Your task to perform on an android device: toggle wifi Image 0: 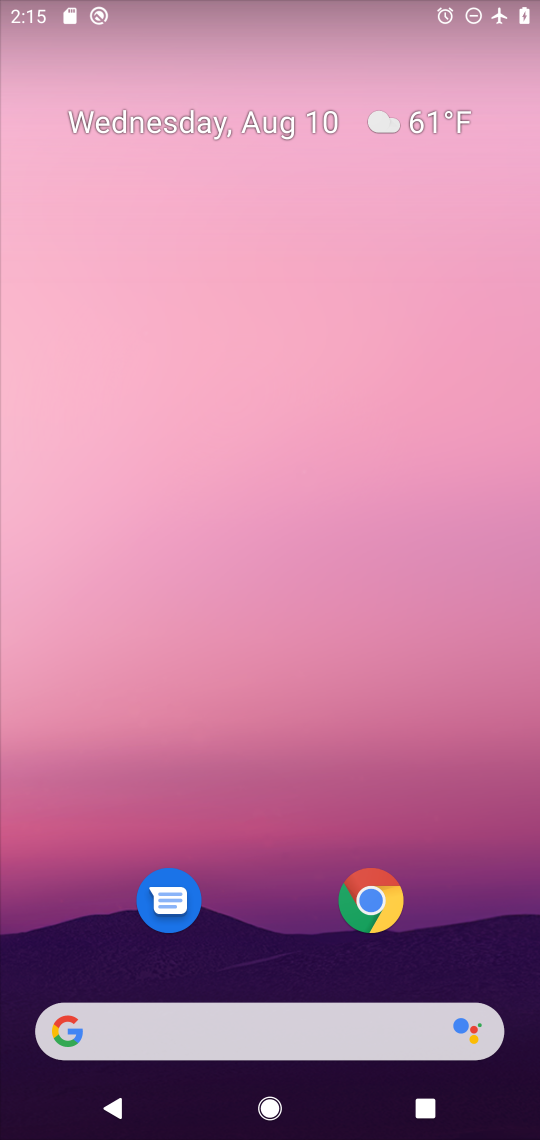
Step 0: drag from (268, 895) to (341, 19)
Your task to perform on an android device: toggle wifi Image 1: 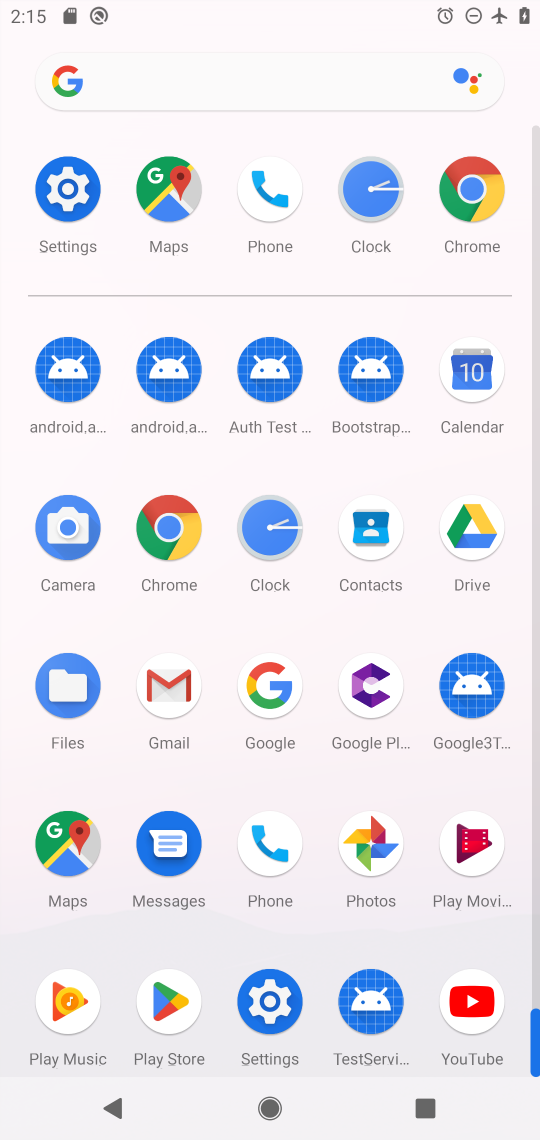
Step 1: click (76, 194)
Your task to perform on an android device: toggle wifi Image 2: 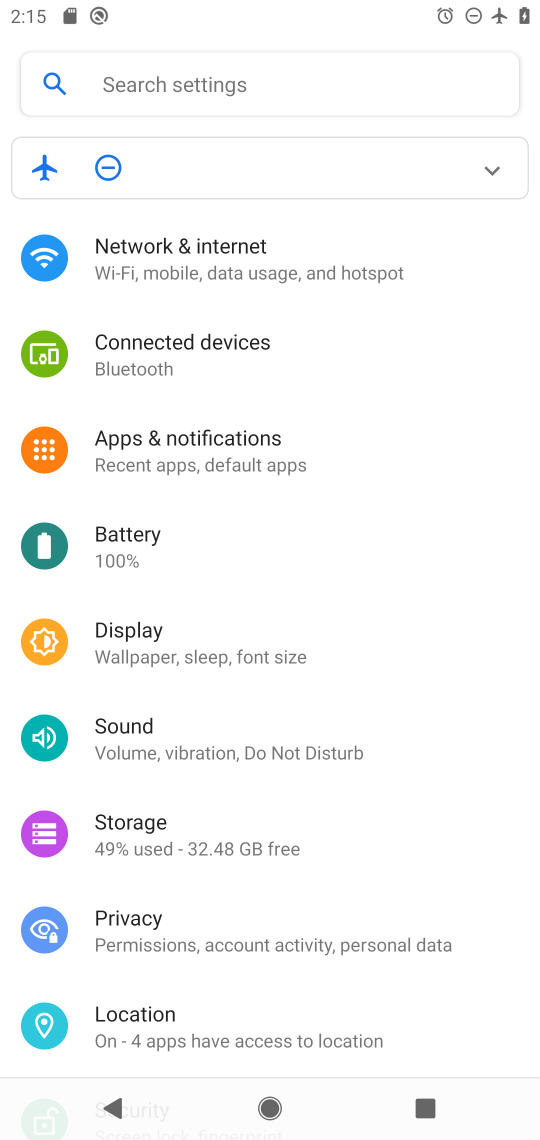
Step 2: click (189, 256)
Your task to perform on an android device: toggle wifi Image 3: 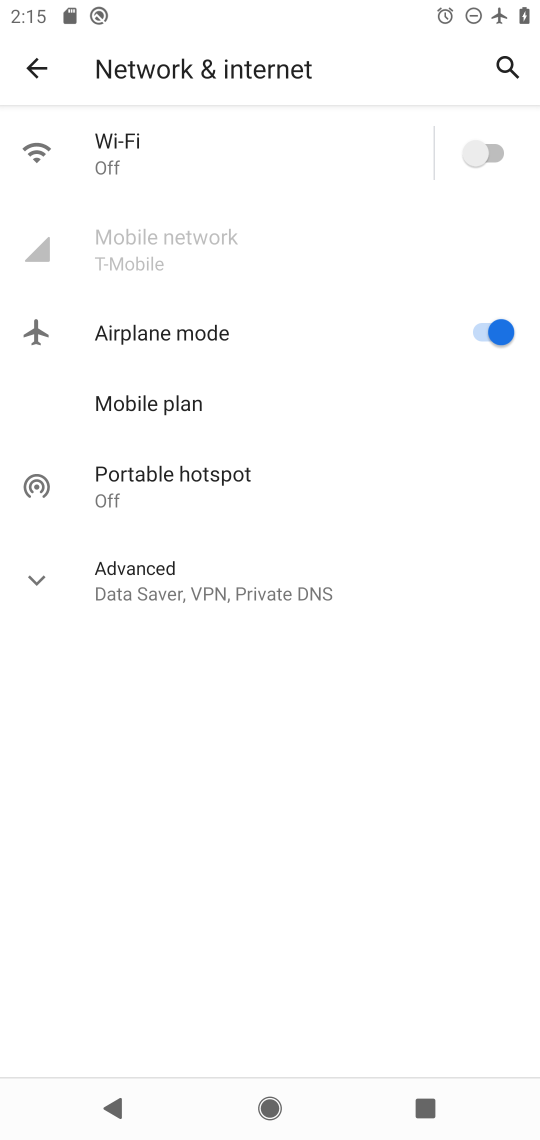
Step 3: click (480, 150)
Your task to perform on an android device: toggle wifi Image 4: 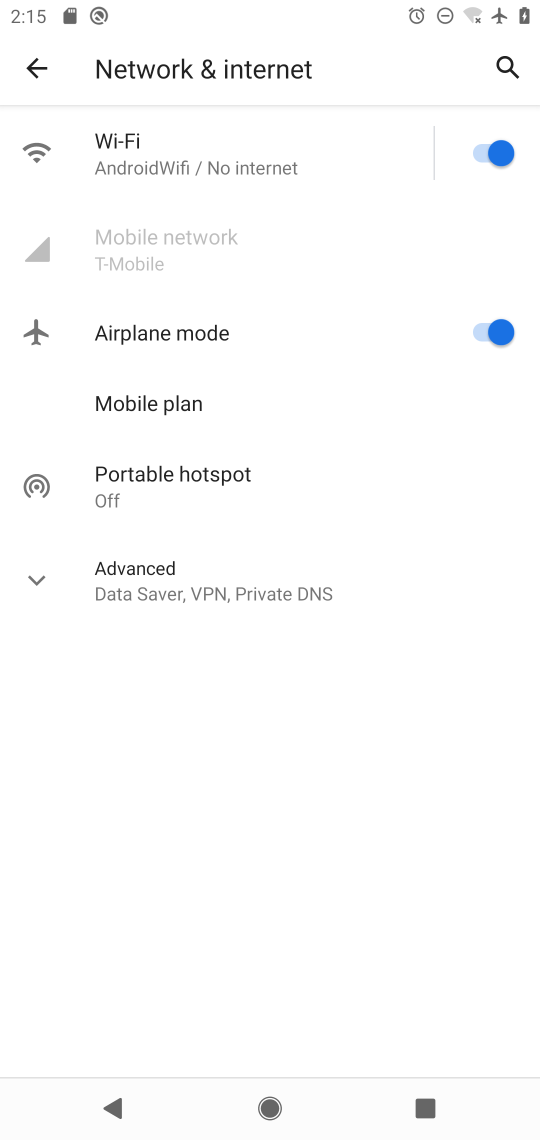
Step 4: task complete